Your task to perform on an android device: delete location history Image 0: 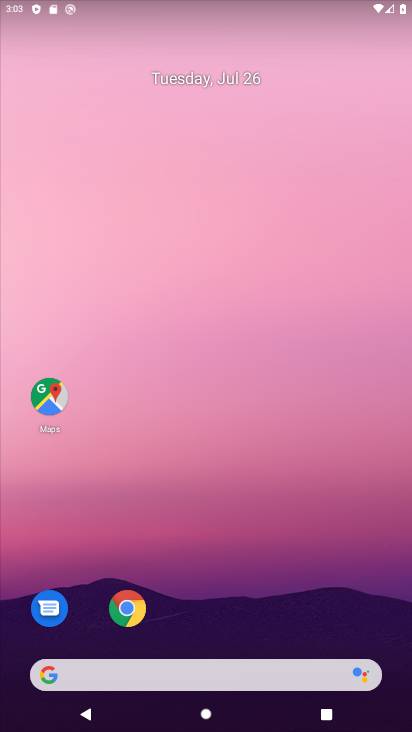
Step 0: click (45, 398)
Your task to perform on an android device: delete location history Image 1: 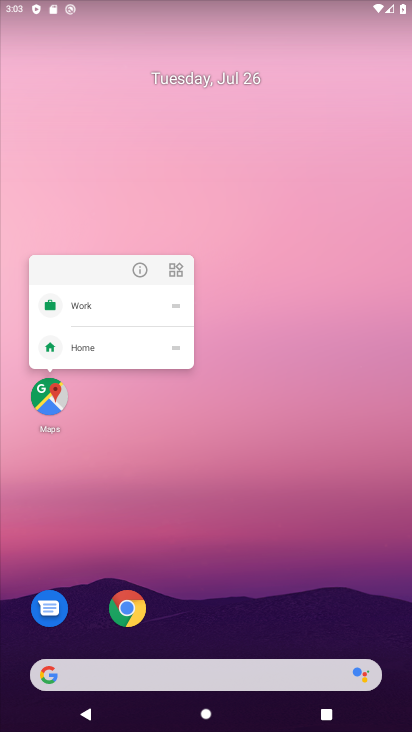
Step 1: click (45, 398)
Your task to perform on an android device: delete location history Image 2: 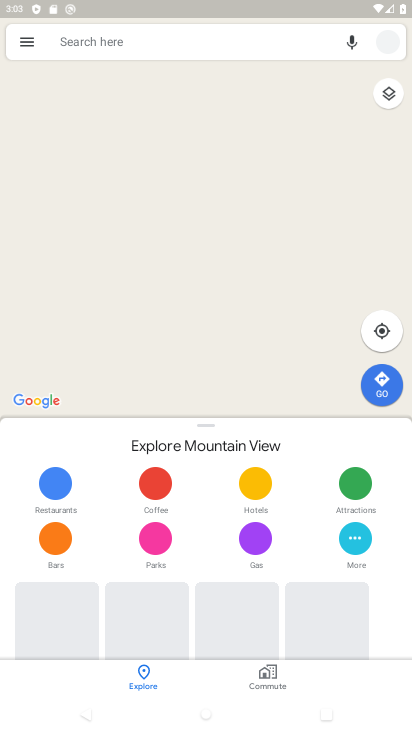
Step 2: click (20, 35)
Your task to perform on an android device: delete location history Image 3: 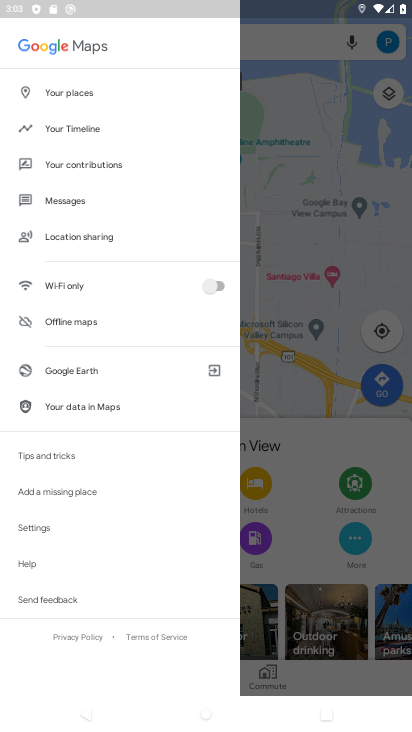
Step 3: click (85, 119)
Your task to perform on an android device: delete location history Image 4: 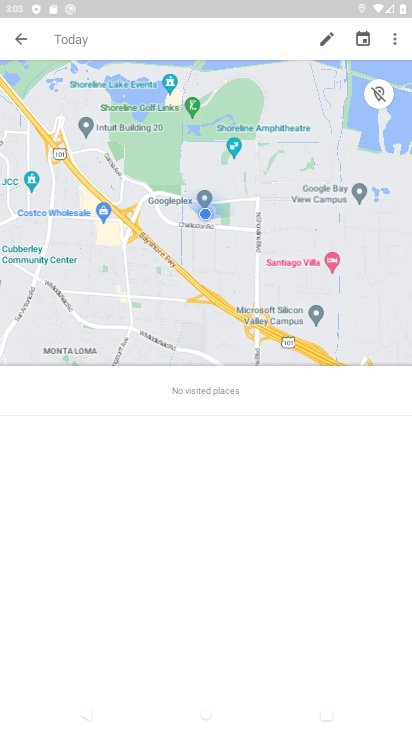
Step 4: click (398, 38)
Your task to perform on an android device: delete location history Image 5: 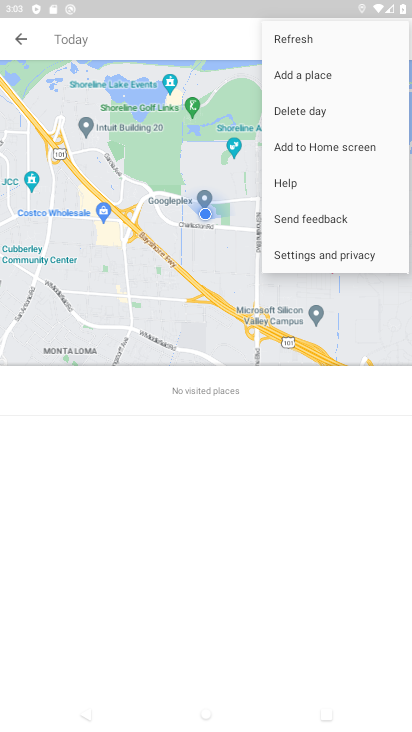
Step 5: click (326, 253)
Your task to perform on an android device: delete location history Image 6: 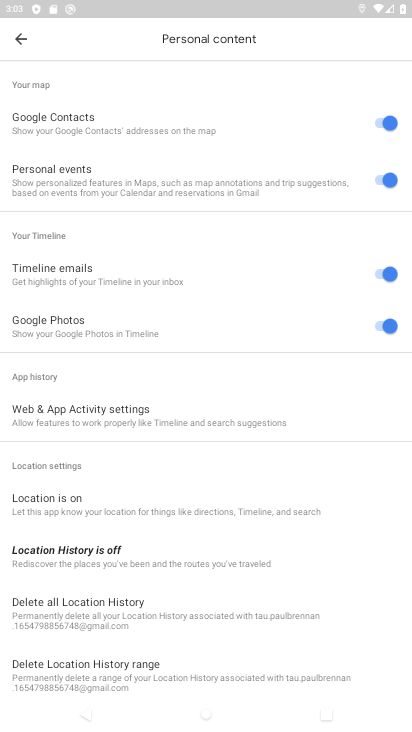
Step 6: click (108, 602)
Your task to perform on an android device: delete location history Image 7: 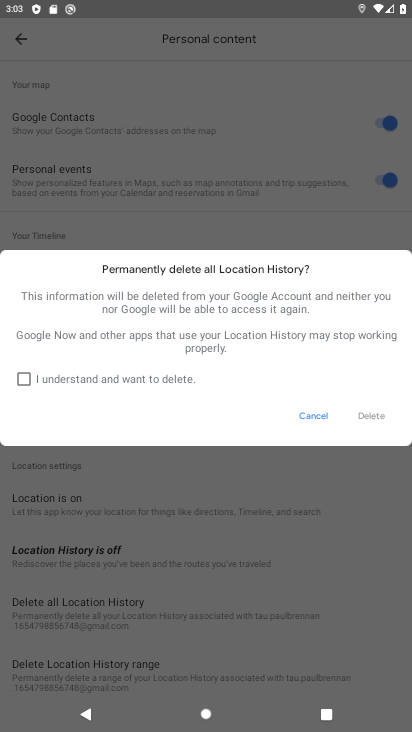
Step 7: click (38, 379)
Your task to perform on an android device: delete location history Image 8: 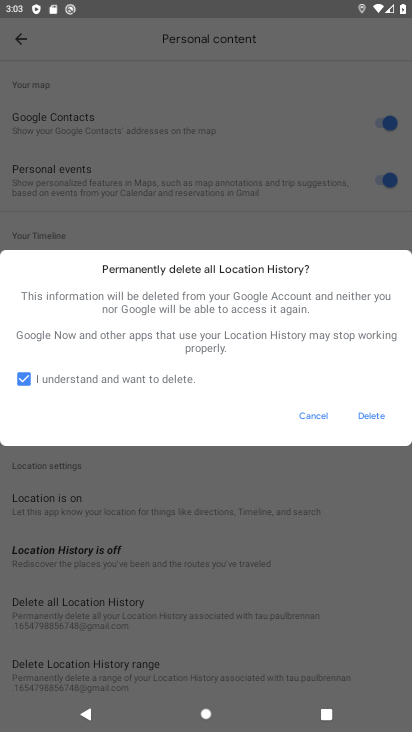
Step 8: click (368, 415)
Your task to perform on an android device: delete location history Image 9: 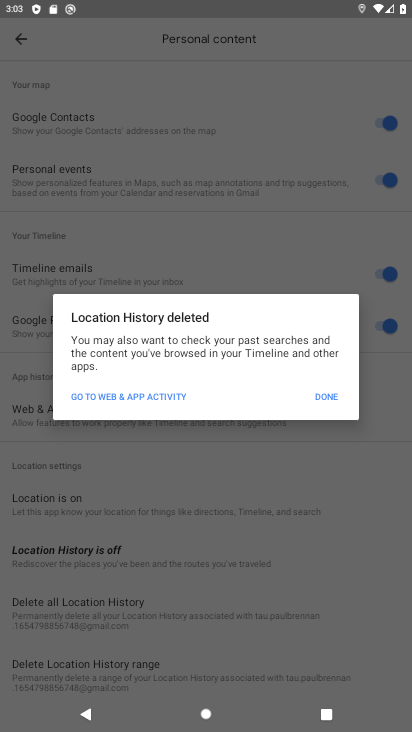
Step 9: click (329, 396)
Your task to perform on an android device: delete location history Image 10: 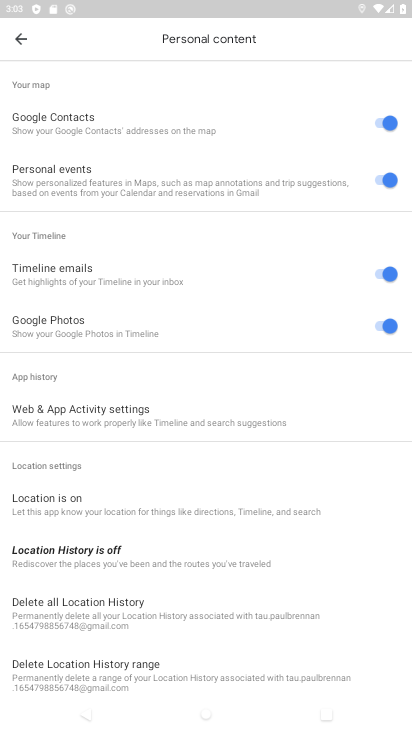
Step 10: task complete